Your task to perform on an android device: Open the stopwatch Image 0: 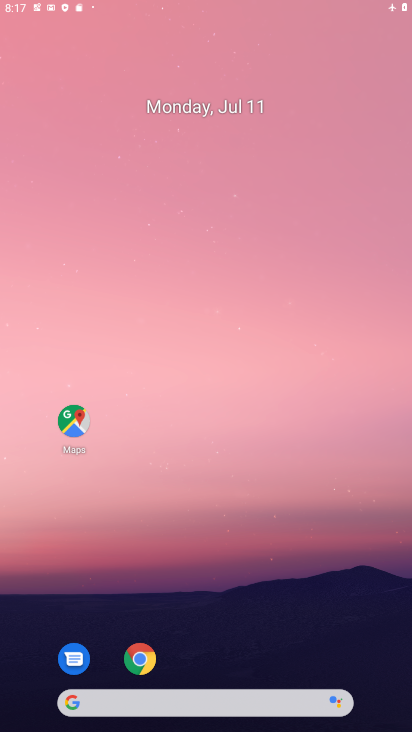
Step 0: drag from (185, 538) to (120, 63)
Your task to perform on an android device: Open the stopwatch Image 1: 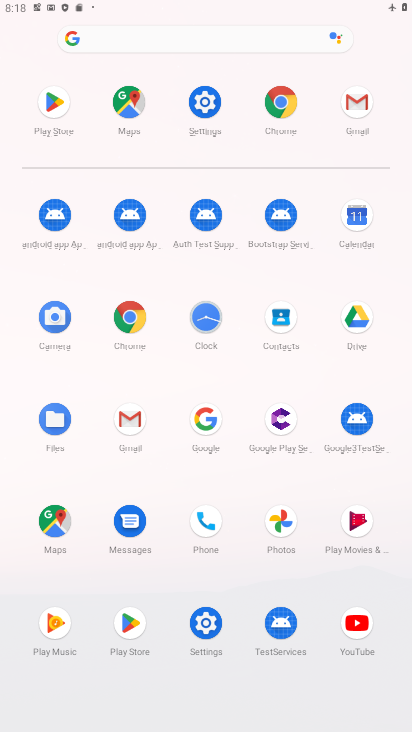
Step 1: click (193, 323)
Your task to perform on an android device: Open the stopwatch Image 2: 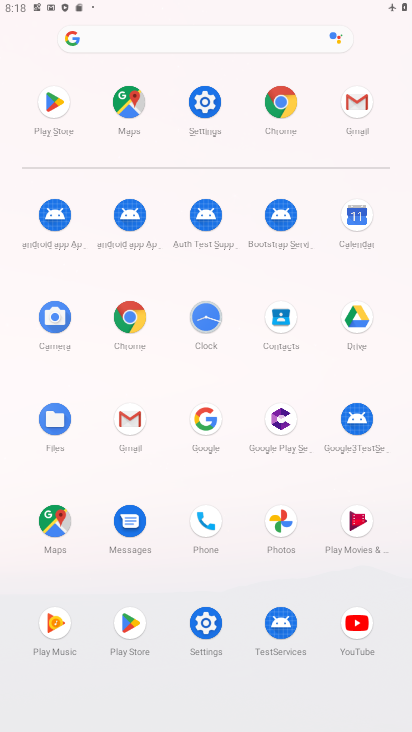
Step 2: click (197, 318)
Your task to perform on an android device: Open the stopwatch Image 3: 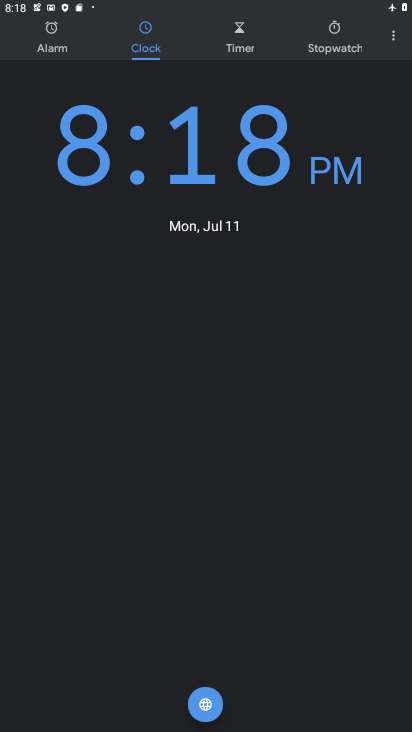
Step 3: click (201, 322)
Your task to perform on an android device: Open the stopwatch Image 4: 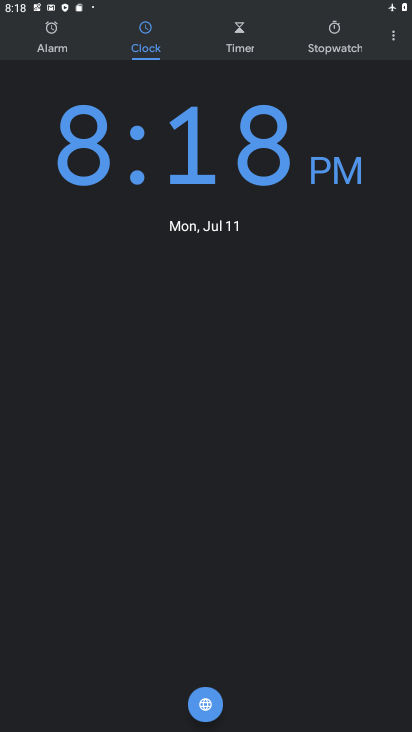
Step 4: click (340, 34)
Your task to perform on an android device: Open the stopwatch Image 5: 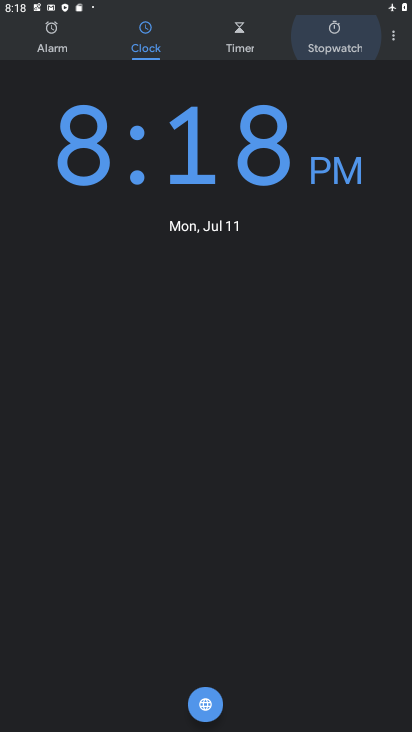
Step 5: click (339, 35)
Your task to perform on an android device: Open the stopwatch Image 6: 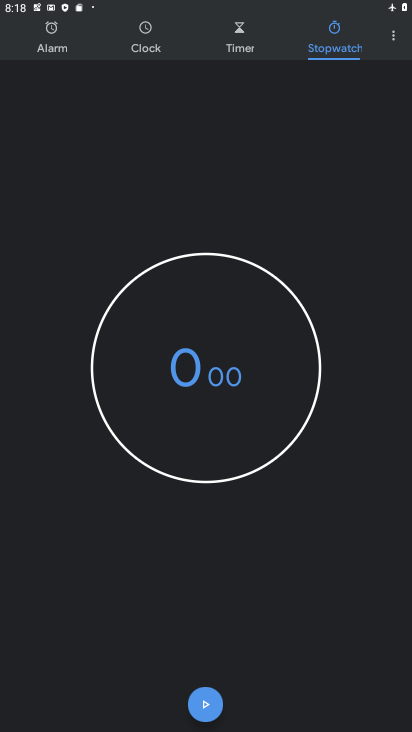
Step 6: task complete